Your task to perform on an android device: move a message to another label in the gmail app Image 0: 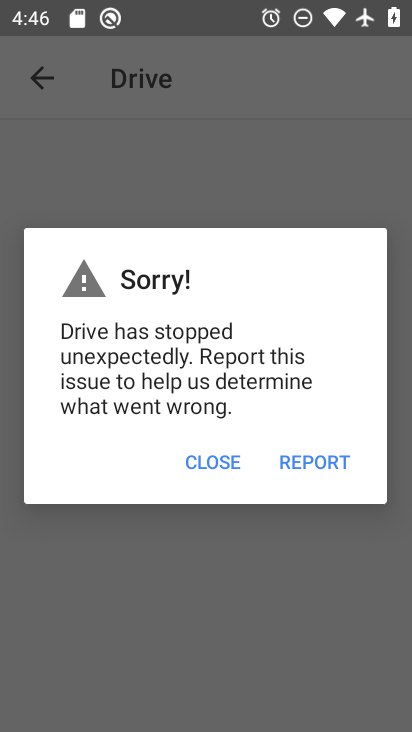
Step 0: press home button
Your task to perform on an android device: move a message to another label in the gmail app Image 1: 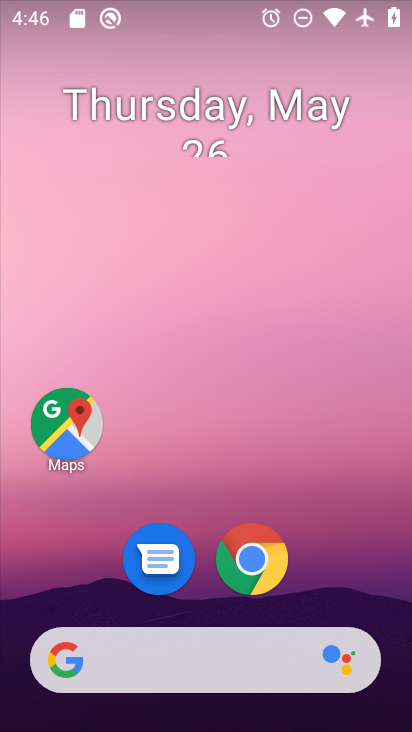
Step 1: drag from (344, 429) to (180, 0)
Your task to perform on an android device: move a message to another label in the gmail app Image 2: 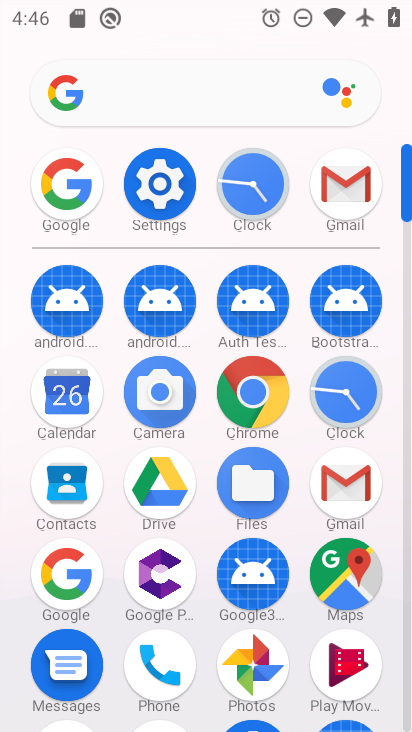
Step 2: click (361, 479)
Your task to perform on an android device: move a message to another label in the gmail app Image 3: 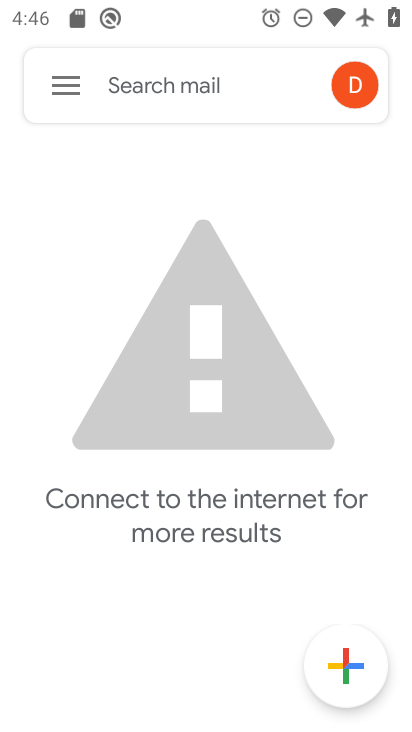
Step 3: click (64, 86)
Your task to perform on an android device: move a message to another label in the gmail app Image 4: 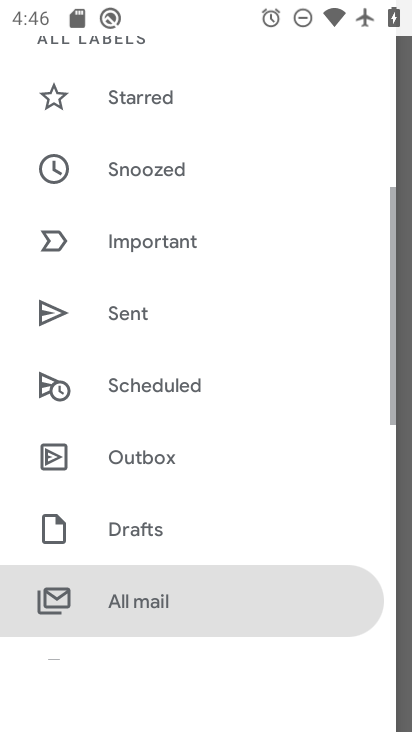
Step 4: click (204, 581)
Your task to perform on an android device: move a message to another label in the gmail app Image 5: 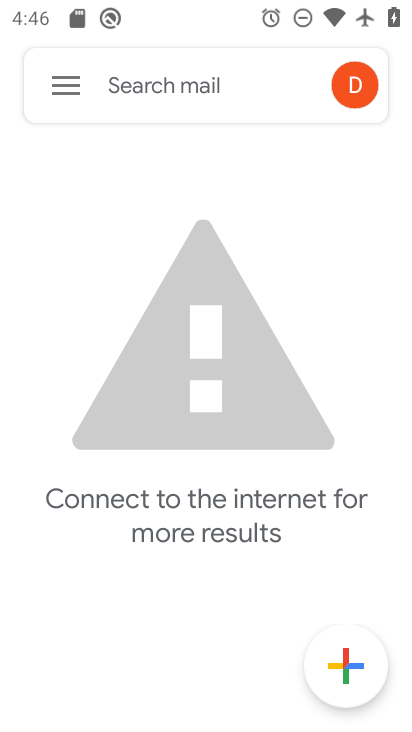
Step 5: task complete